Your task to perform on an android device: What's on my calendar today? Image 0: 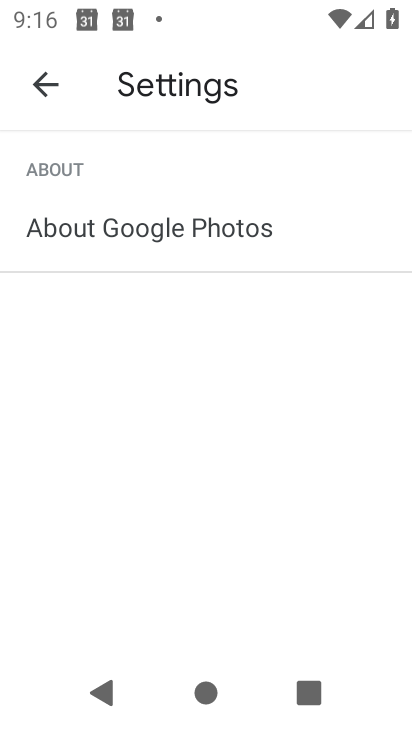
Step 0: press home button
Your task to perform on an android device: What's on my calendar today? Image 1: 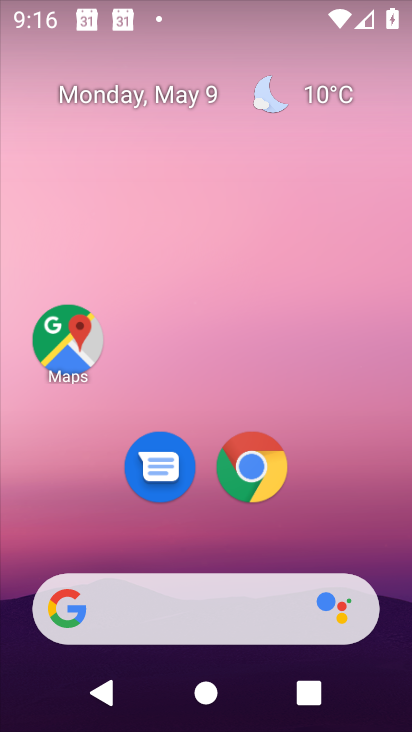
Step 1: drag from (359, 547) to (346, 0)
Your task to perform on an android device: What's on my calendar today? Image 2: 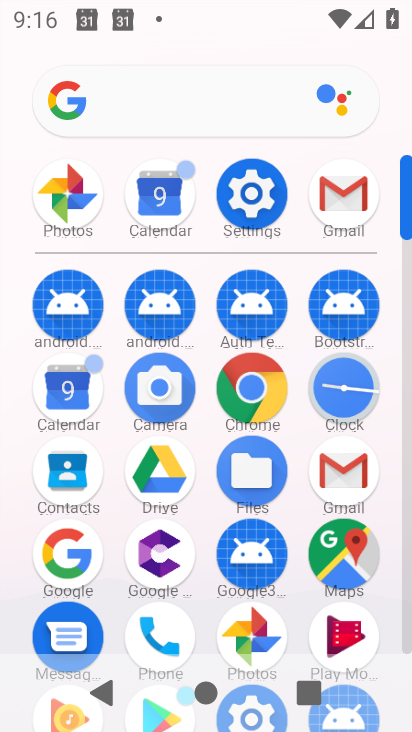
Step 2: click (155, 211)
Your task to perform on an android device: What's on my calendar today? Image 3: 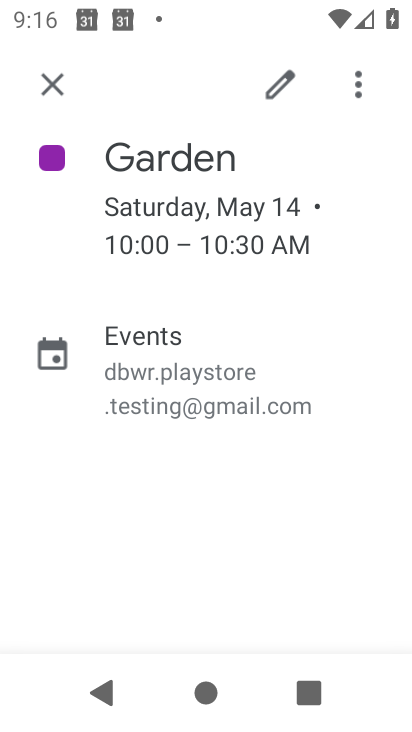
Step 3: click (54, 85)
Your task to perform on an android device: What's on my calendar today? Image 4: 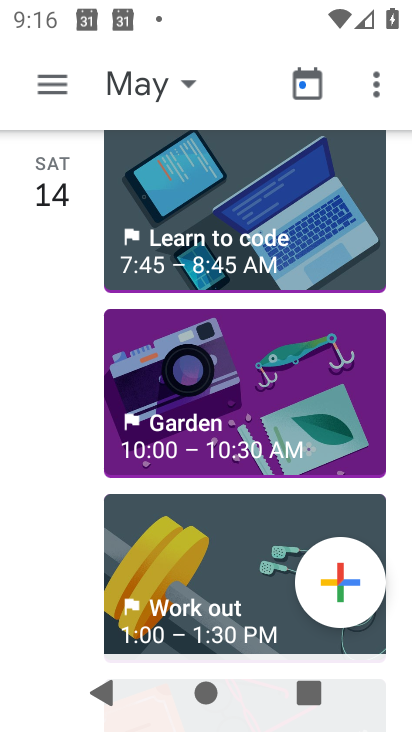
Step 4: drag from (178, 210) to (238, 683)
Your task to perform on an android device: What's on my calendar today? Image 5: 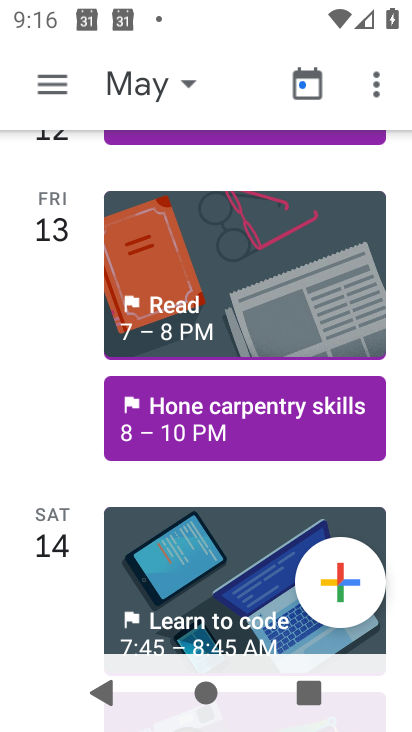
Step 5: drag from (202, 296) to (233, 731)
Your task to perform on an android device: What's on my calendar today? Image 6: 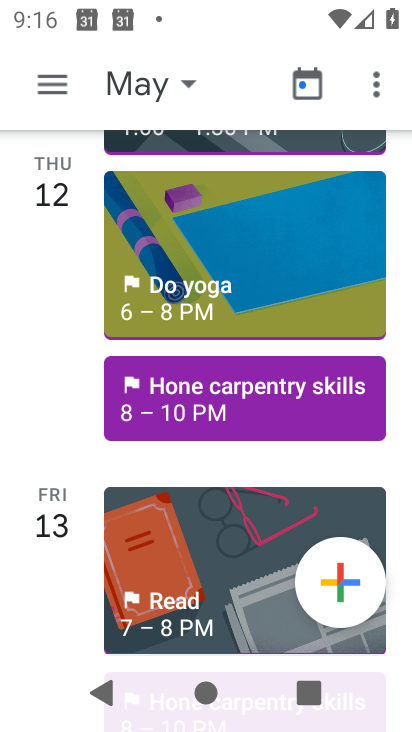
Step 6: drag from (209, 351) to (244, 659)
Your task to perform on an android device: What's on my calendar today? Image 7: 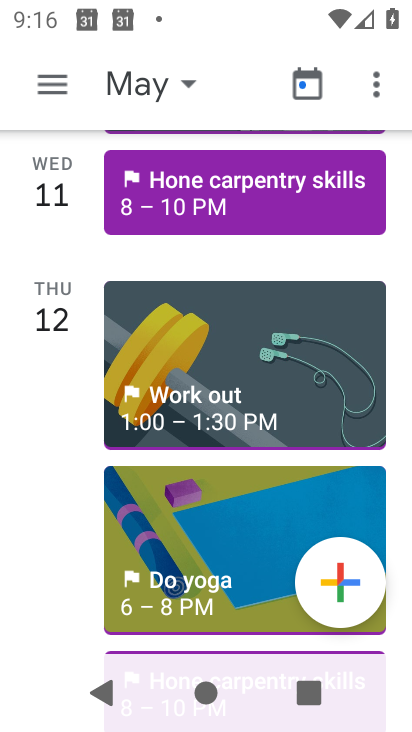
Step 7: drag from (213, 315) to (248, 722)
Your task to perform on an android device: What's on my calendar today? Image 8: 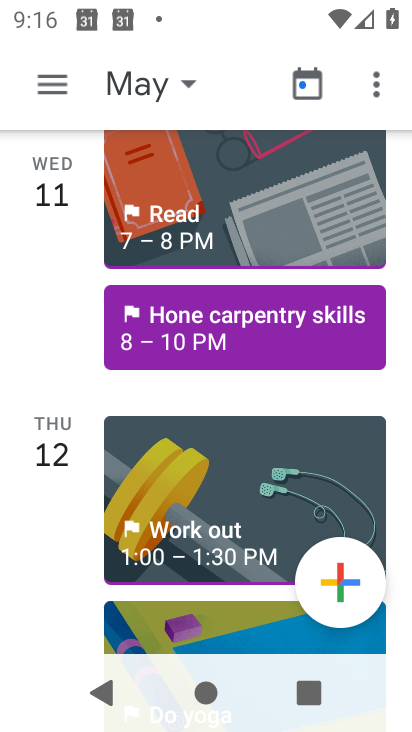
Step 8: drag from (227, 276) to (224, 616)
Your task to perform on an android device: What's on my calendar today? Image 9: 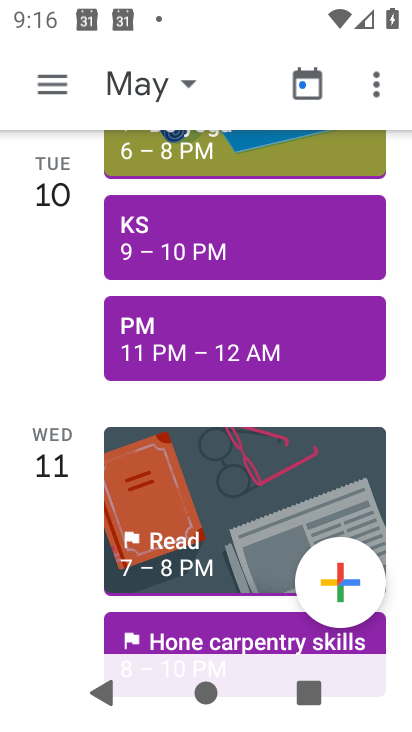
Step 9: drag from (172, 171) to (179, 621)
Your task to perform on an android device: What's on my calendar today? Image 10: 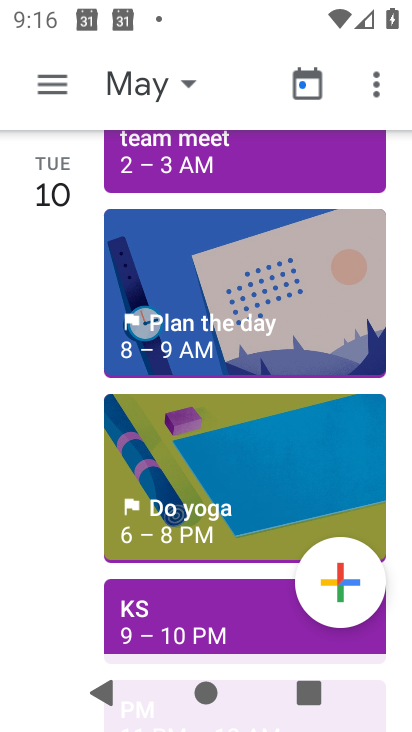
Step 10: drag from (199, 186) to (175, 565)
Your task to perform on an android device: What's on my calendar today? Image 11: 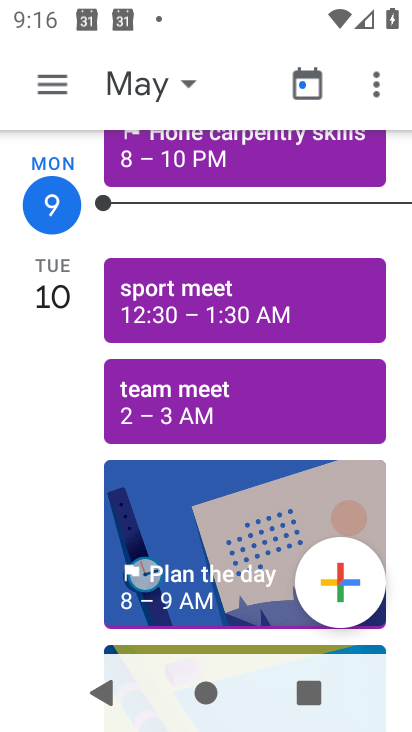
Step 11: drag from (189, 221) to (181, 561)
Your task to perform on an android device: What's on my calendar today? Image 12: 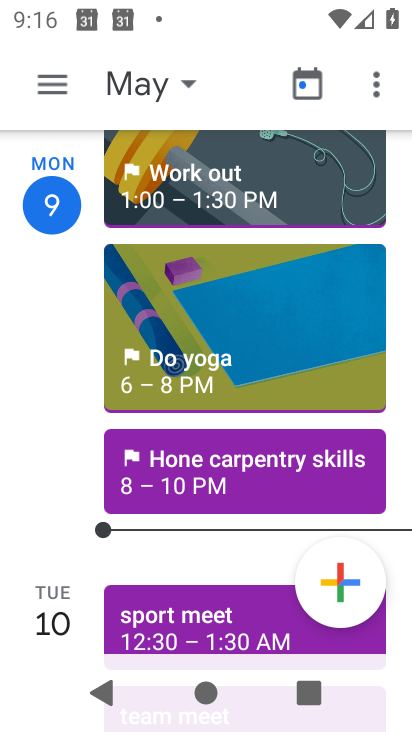
Step 12: click (174, 464)
Your task to perform on an android device: What's on my calendar today? Image 13: 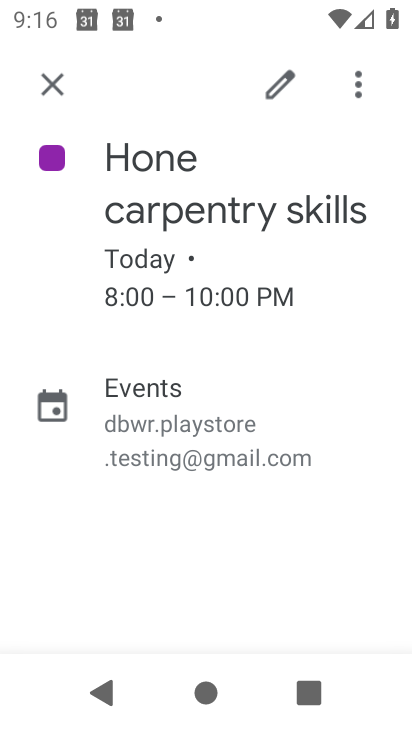
Step 13: task complete